Your task to perform on an android device: Open calendar and show me the third week of next month Image 0: 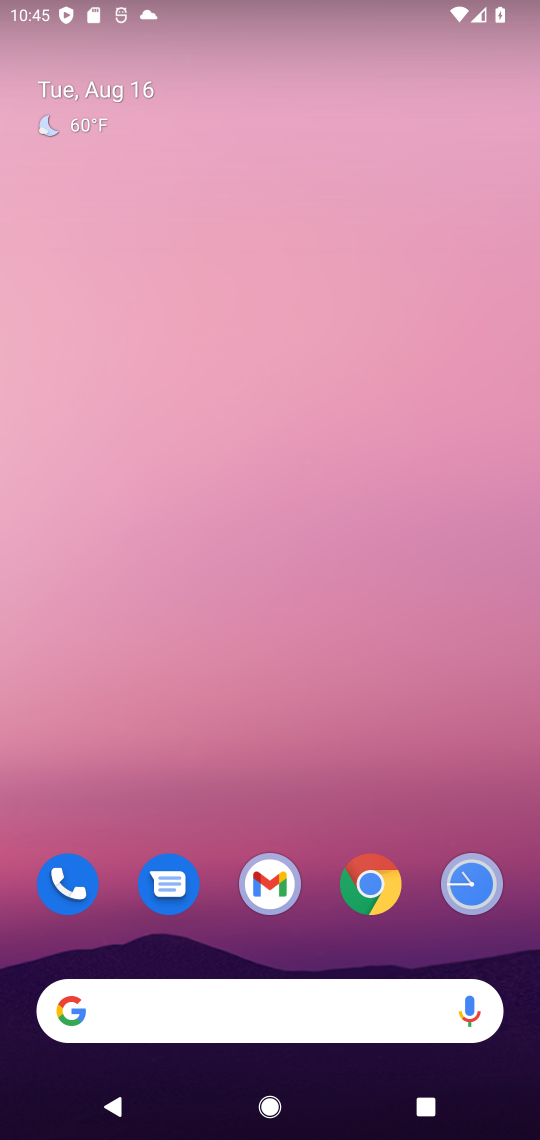
Step 0: drag from (259, 887) to (259, 115)
Your task to perform on an android device: Open calendar and show me the third week of next month Image 1: 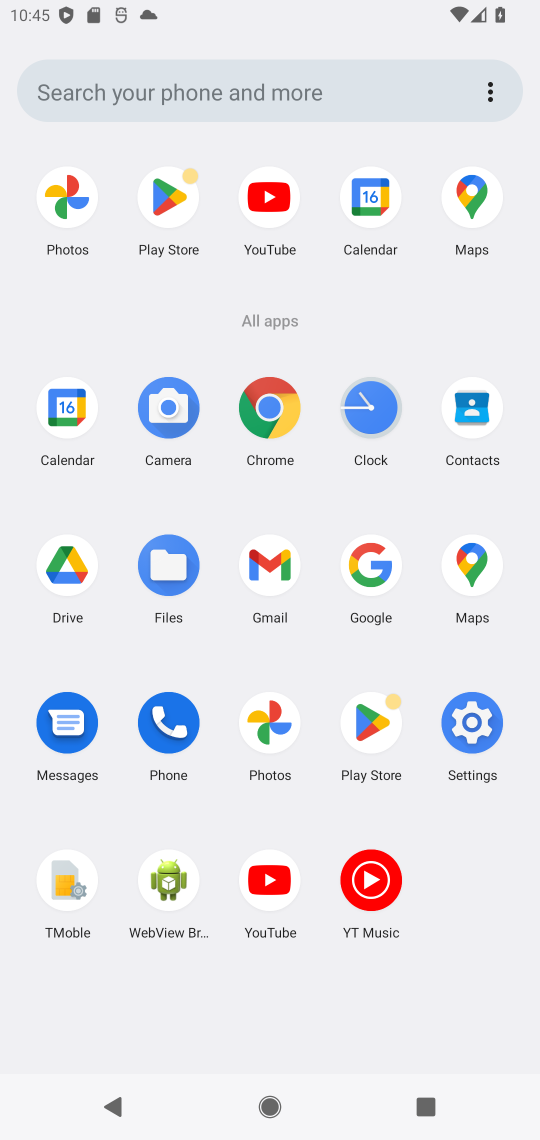
Step 1: click (61, 407)
Your task to perform on an android device: Open calendar and show me the third week of next month Image 2: 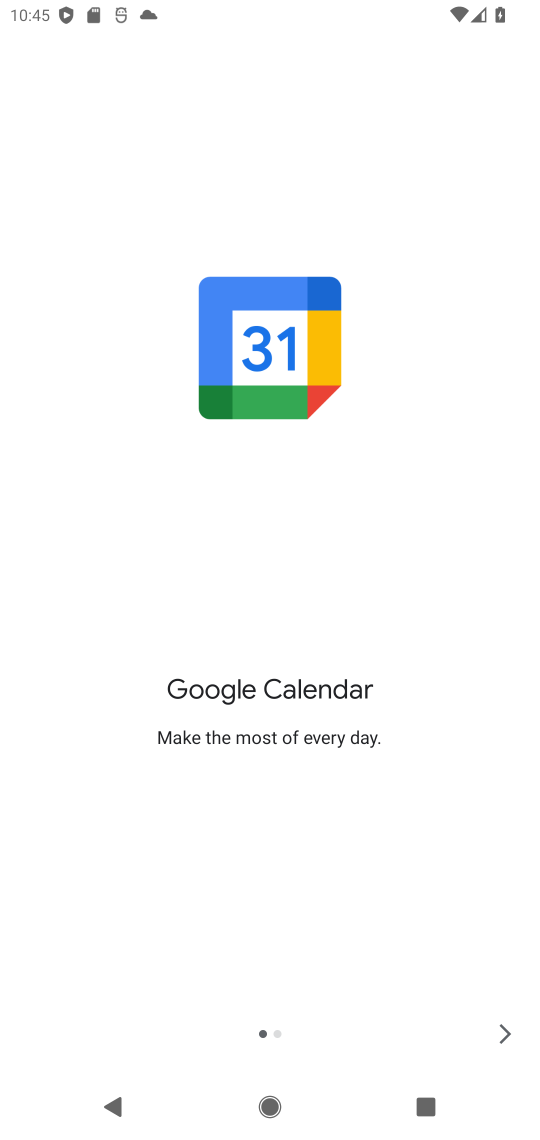
Step 2: click (504, 1028)
Your task to perform on an android device: Open calendar and show me the third week of next month Image 3: 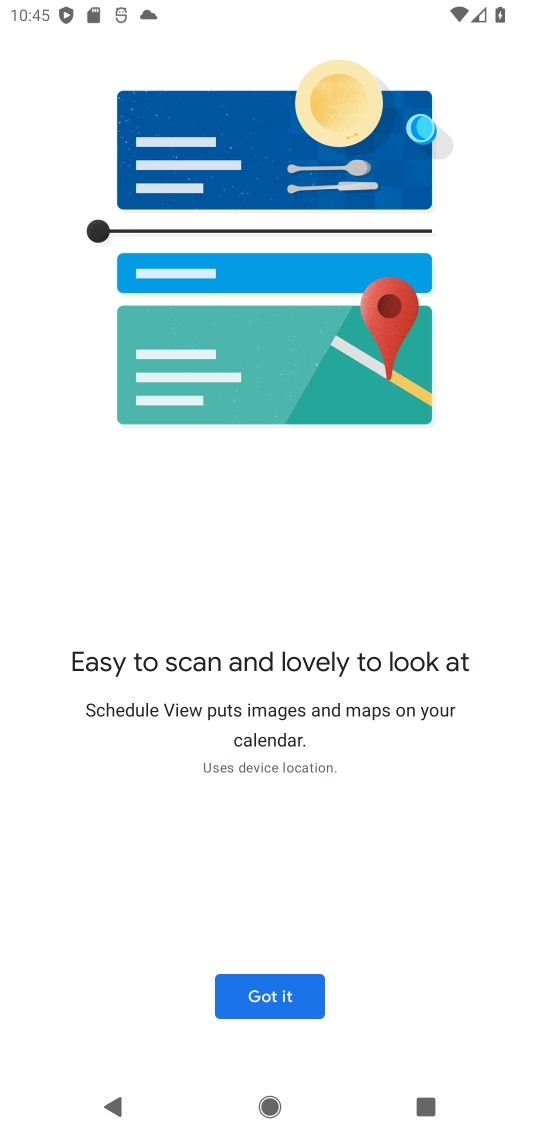
Step 3: click (255, 997)
Your task to perform on an android device: Open calendar and show me the third week of next month Image 4: 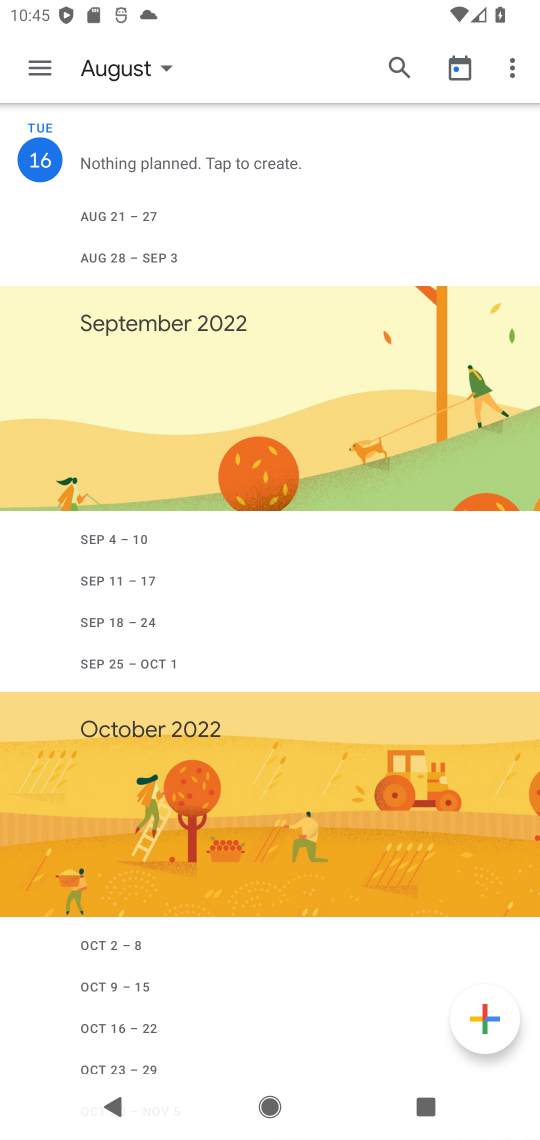
Step 4: click (33, 74)
Your task to perform on an android device: Open calendar and show me the third week of next month Image 5: 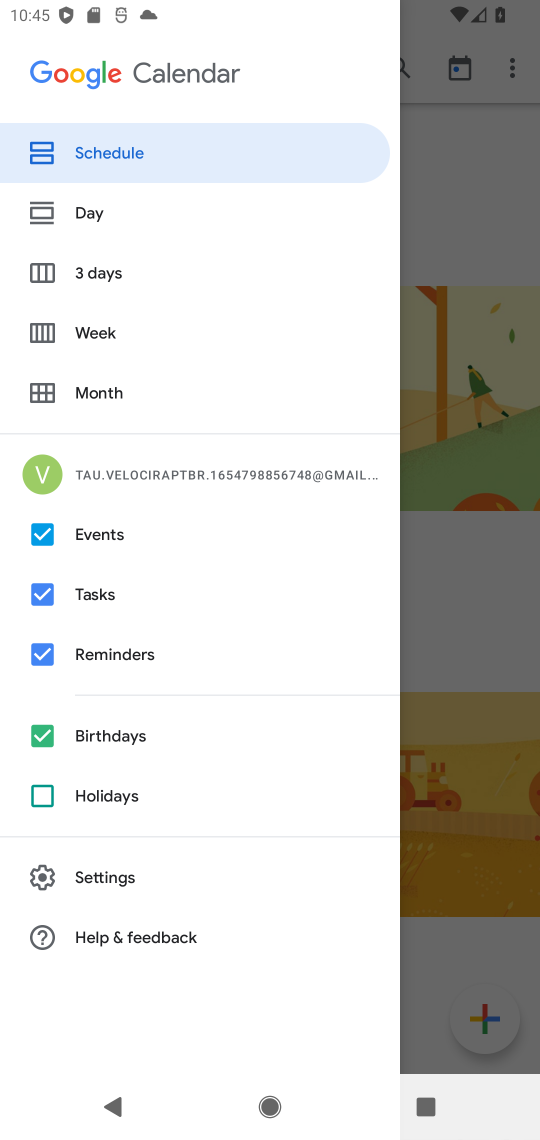
Step 5: click (87, 330)
Your task to perform on an android device: Open calendar and show me the third week of next month Image 6: 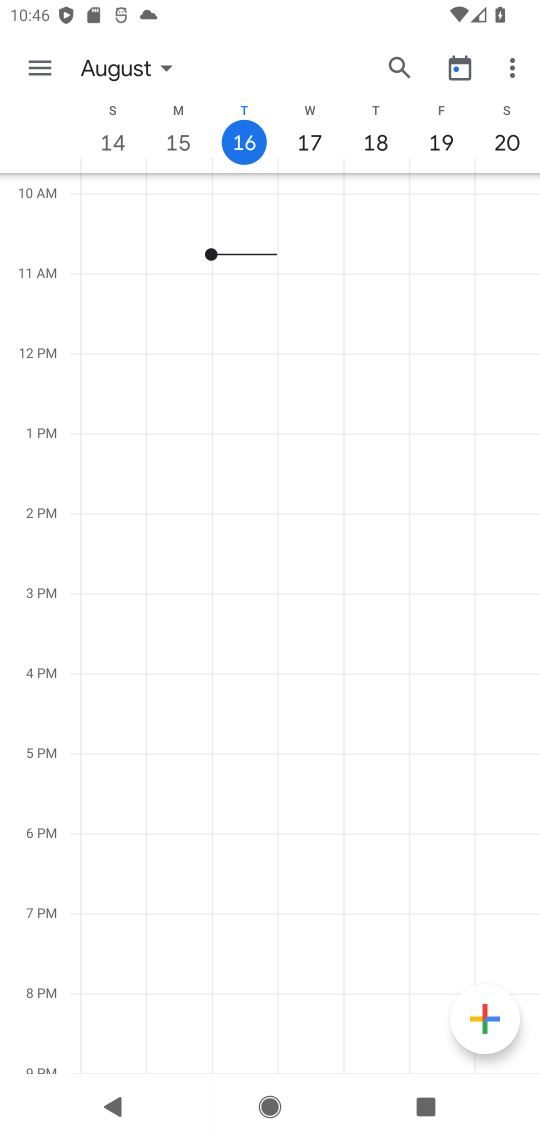
Step 6: click (111, 68)
Your task to perform on an android device: Open calendar and show me the third week of next month Image 7: 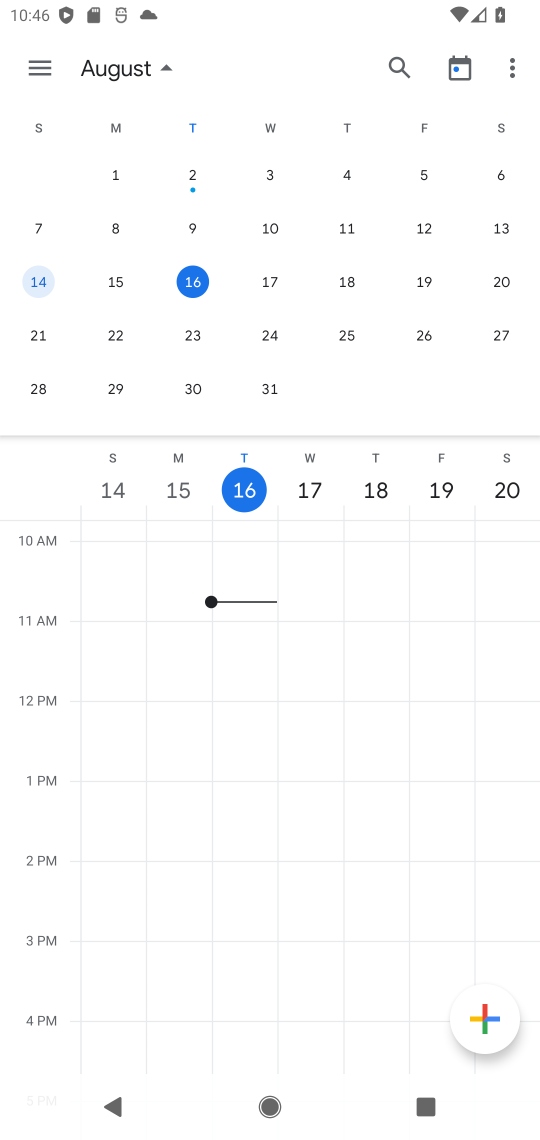
Step 7: drag from (468, 219) to (75, 240)
Your task to perform on an android device: Open calendar and show me the third week of next month Image 8: 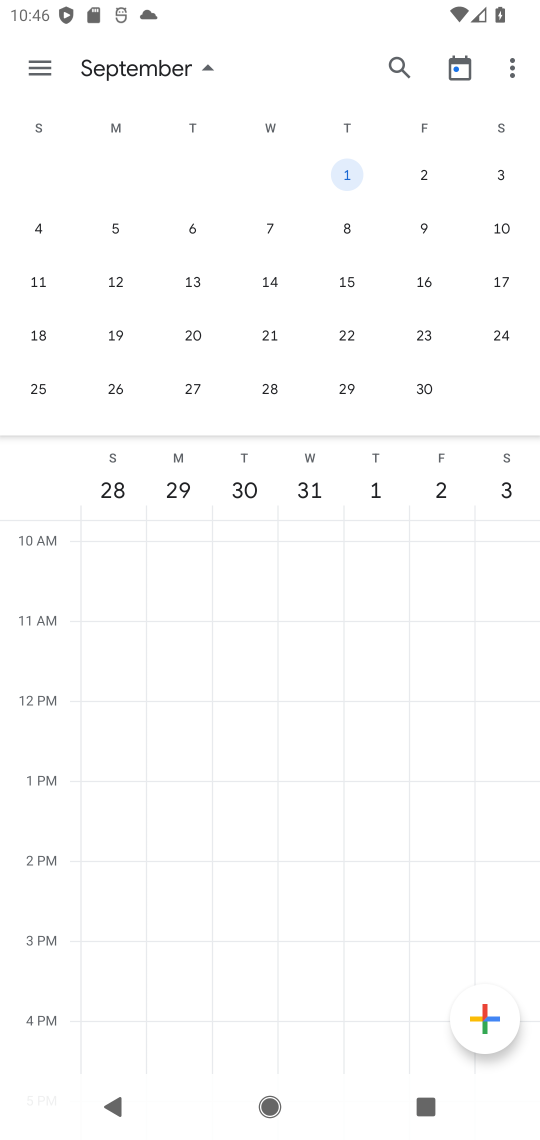
Step 8: click (34, 272)
Your task to perform on an android device: Open calendar and show me the third week of next month Image 9: 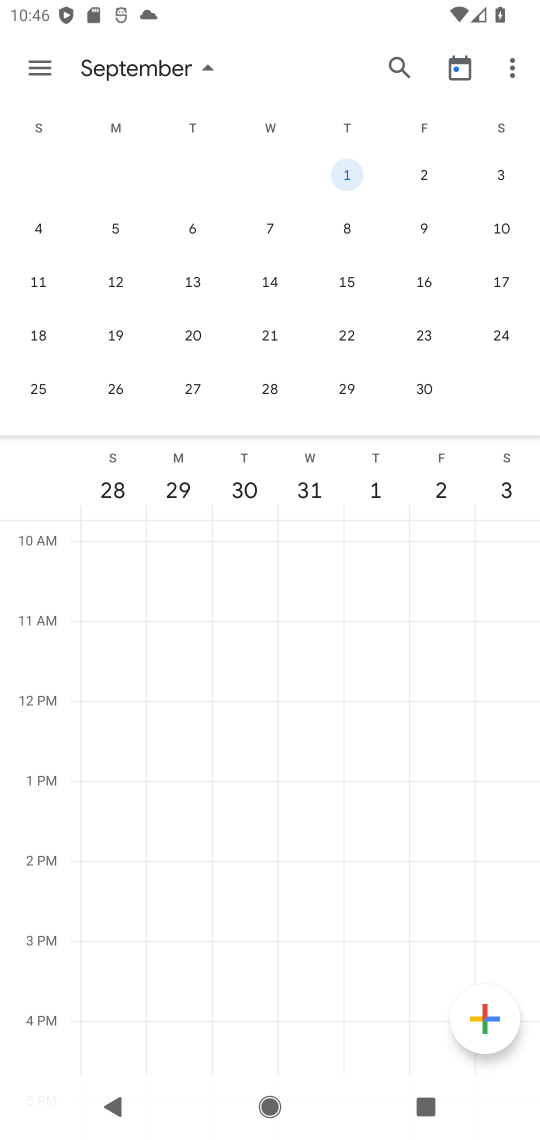
Step 9: click (34, 272)
Your task to perform on an android device: Open calendar and show me the third week of next month Image 10: 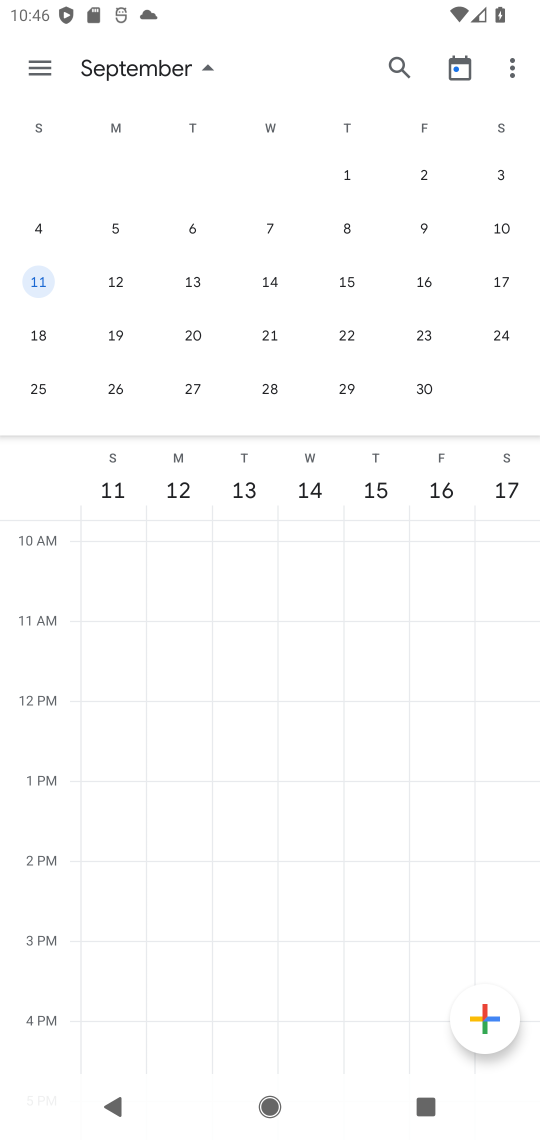
Step 10: task complete